Your task to perform on an android device: open chrome and create a bookmark for the current page Image 0: 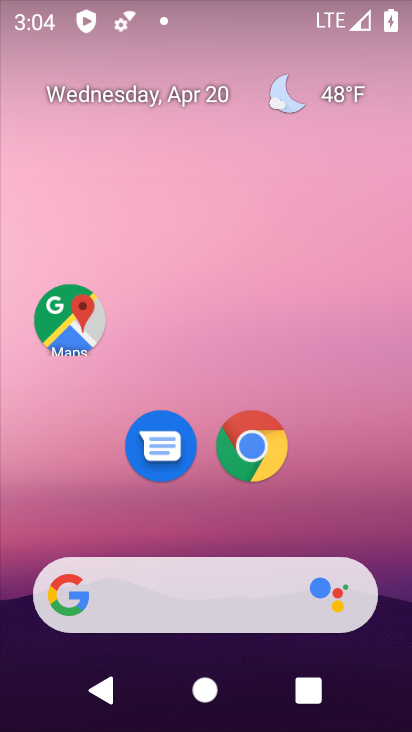
Step 0: click (262, 463)
Your task to perform on an android device: open chrome and create a bookmark for the current page Image 1: 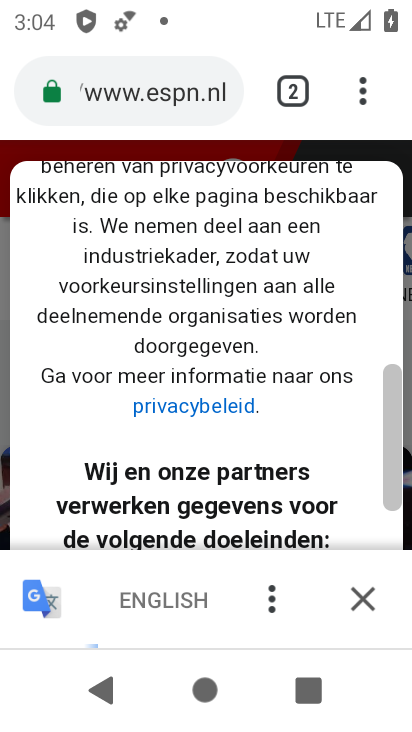
Step 1: click (364, 90)
Your task to perform on an android device: open chrome and create a bookmark for the current page Image 2: 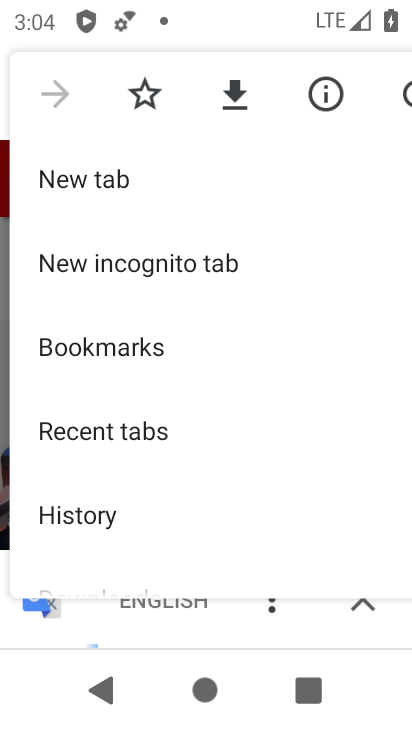
Step 2: click (145, 95)
Your task to perform on an android device: open chrome and create a bookmark for the current page Image 3: 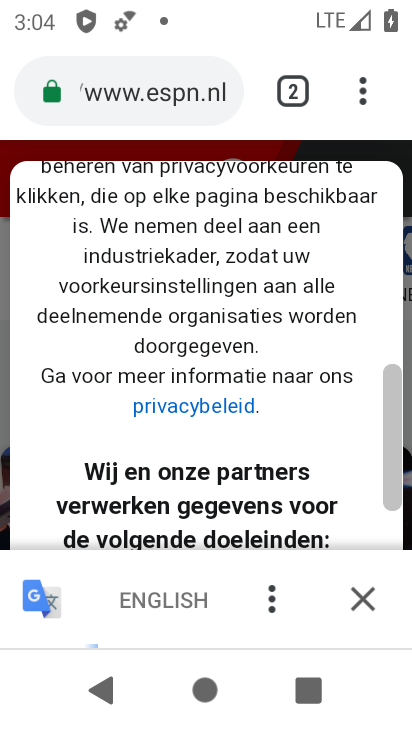
Step 3: task complete